Your task to perform on an android device: What's a good restaurant in San Francisco? Image 0: 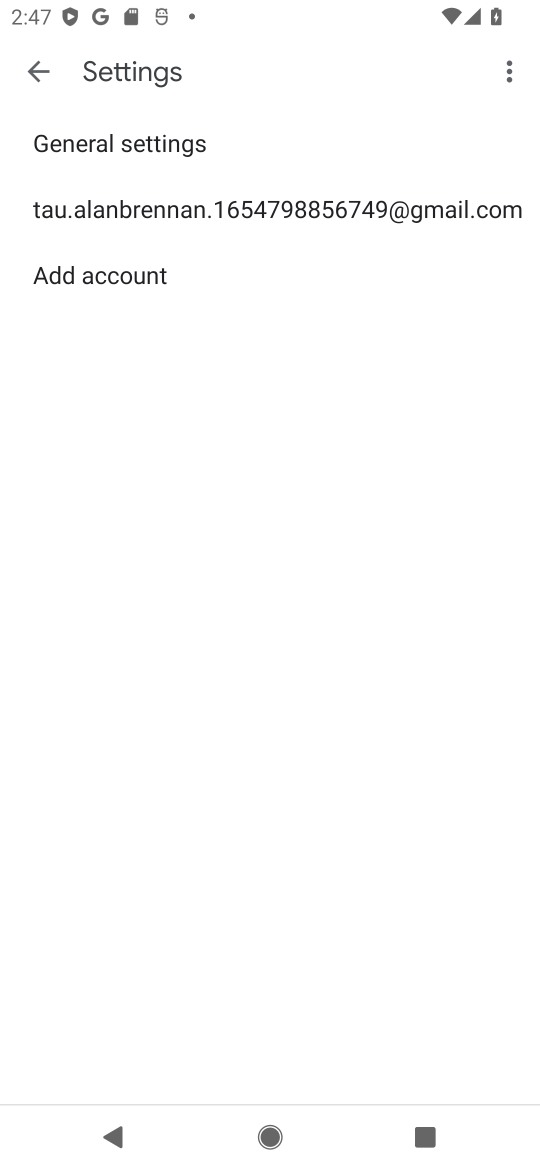
Step 0: press home button
Your task to perform on an android device: What's a good restaurant in San Francisco? Image 1: 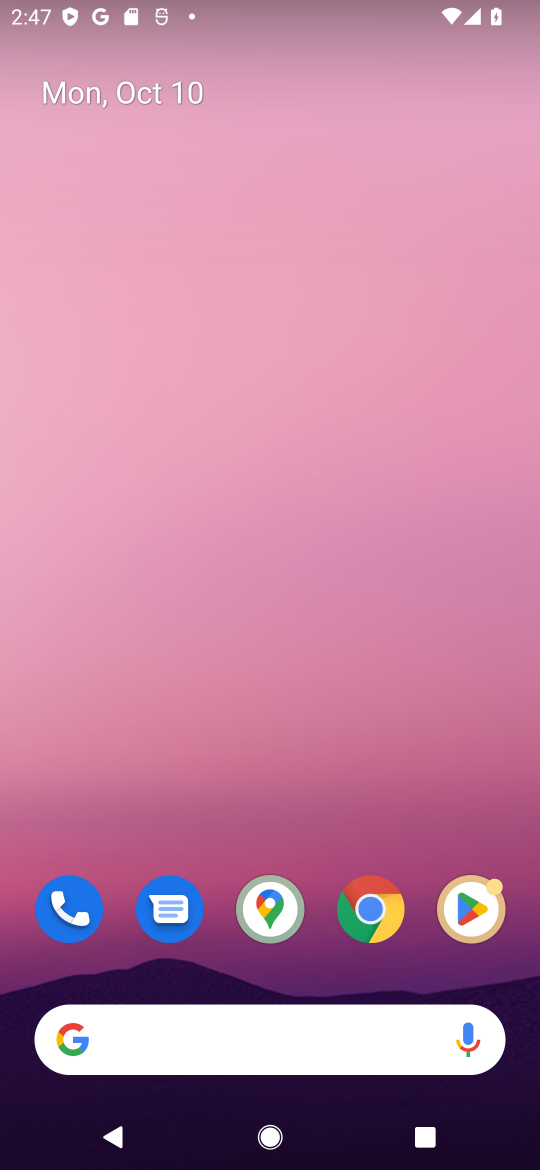
Step 1: click (363, 918)
Your task to perform on an android device: What's a good restaurant in San Francisco? Image 2: 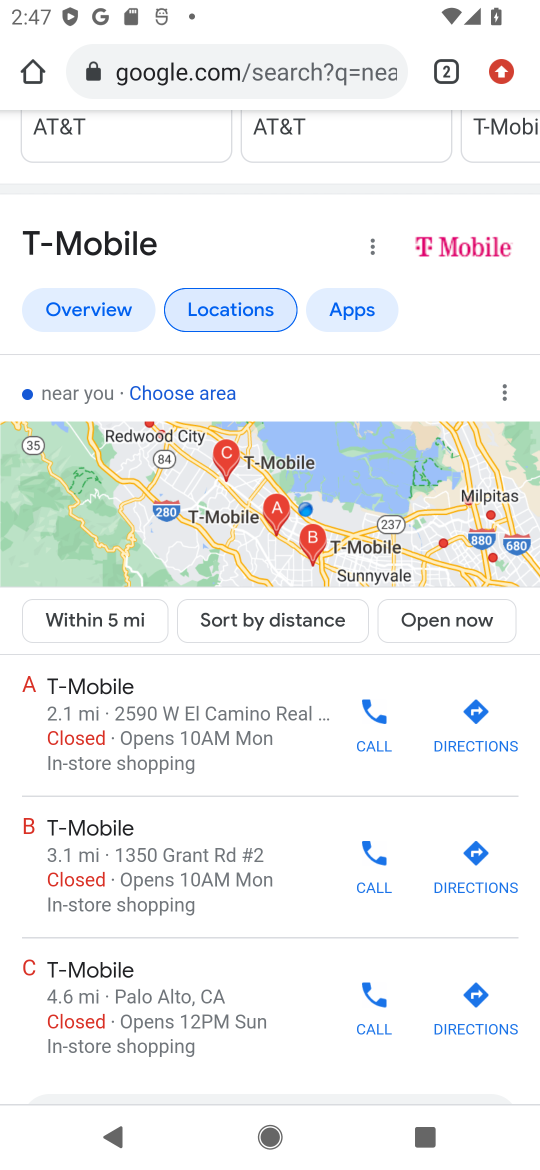
Step 2: click (248, 47)
Your task to perform on an android device: What's a good restaurant in San Francisco? Image 3: 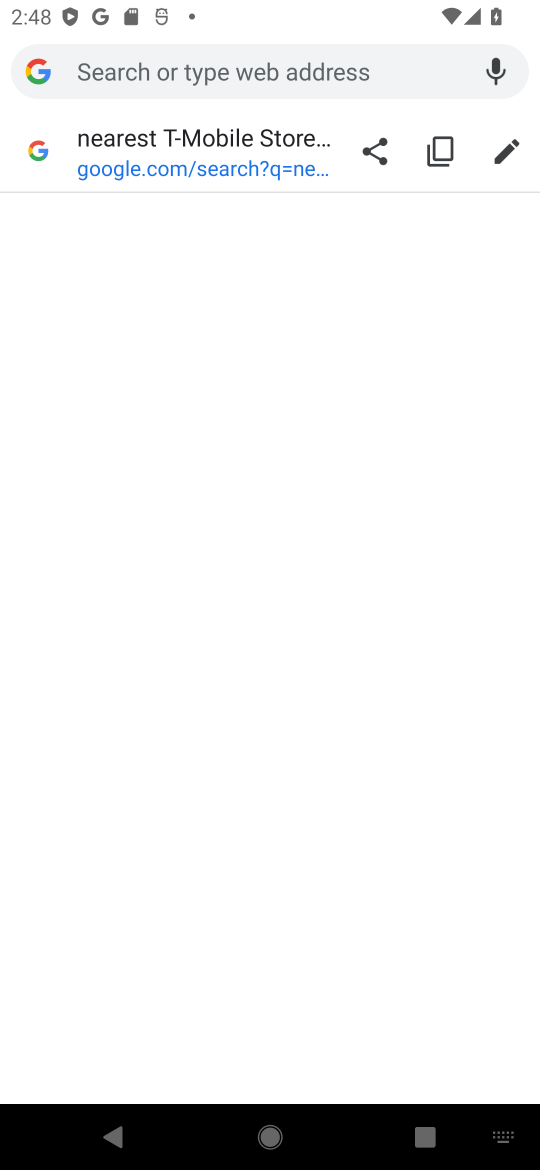
Step 3: type "good restaurant in San Francisco?"
Your task to perform on an android device: What's a good restaurant in San Francisco? Image 4: 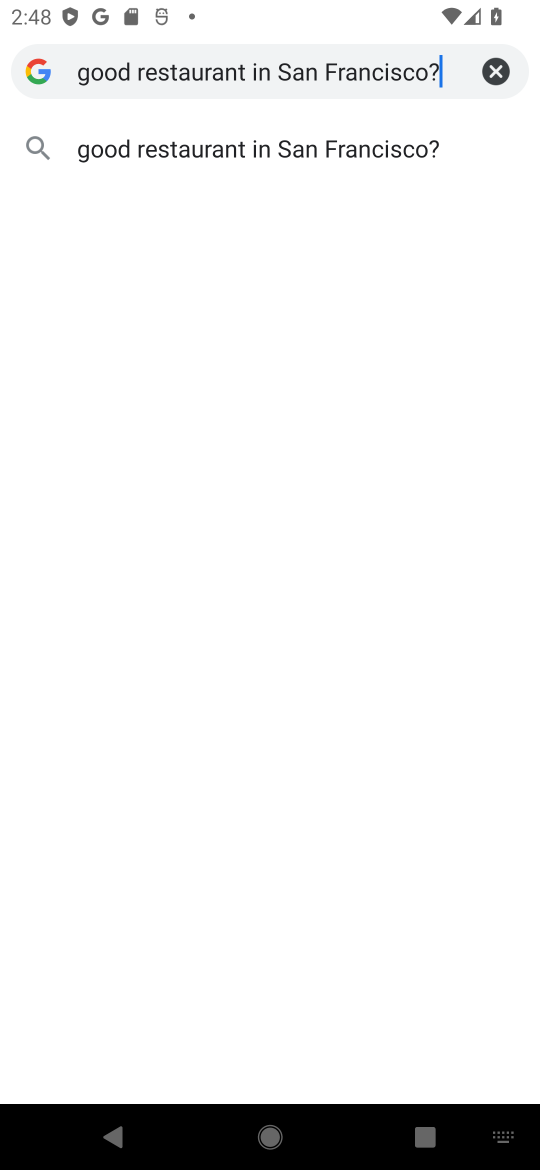
Step 4: click (193, 159)
Your task to perform on an android device: What's a good restaurant in San Francisco? Image 5: 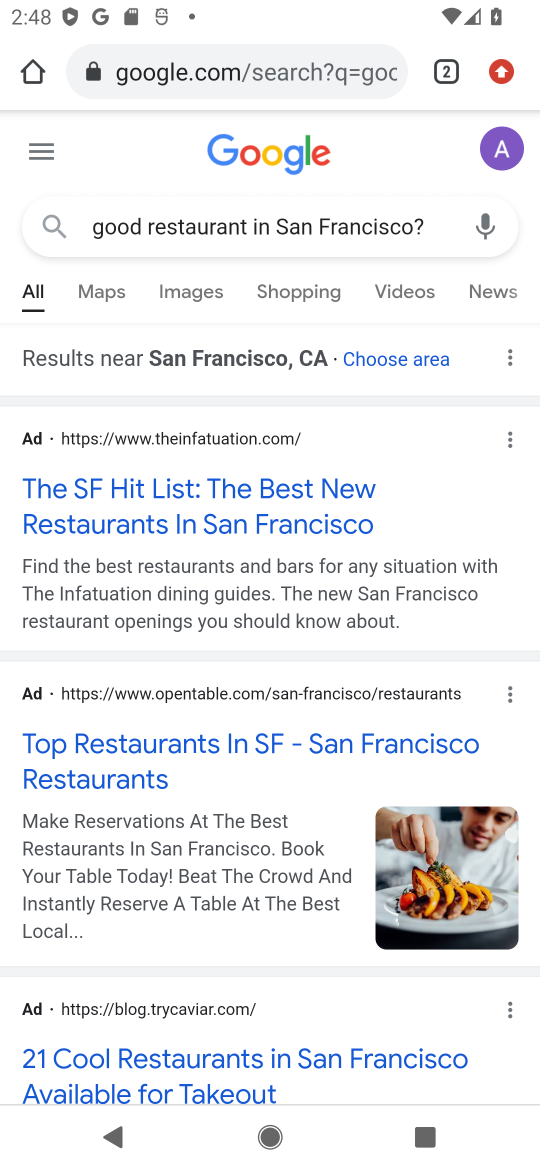
Step 5: click (134, 761)
Your task to perform on an android device: What's a good restaurant in San Francisco? Image 6: 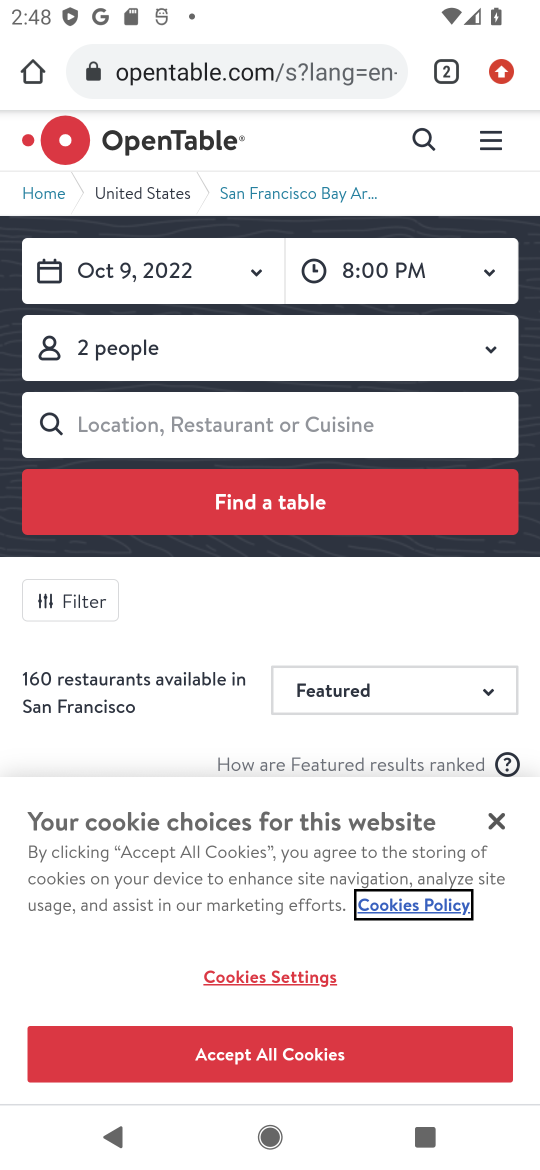
Step 6: click (269, 1051)
Your task to perform on an android device: What's a good restaurant in San Francisco? Image 7: 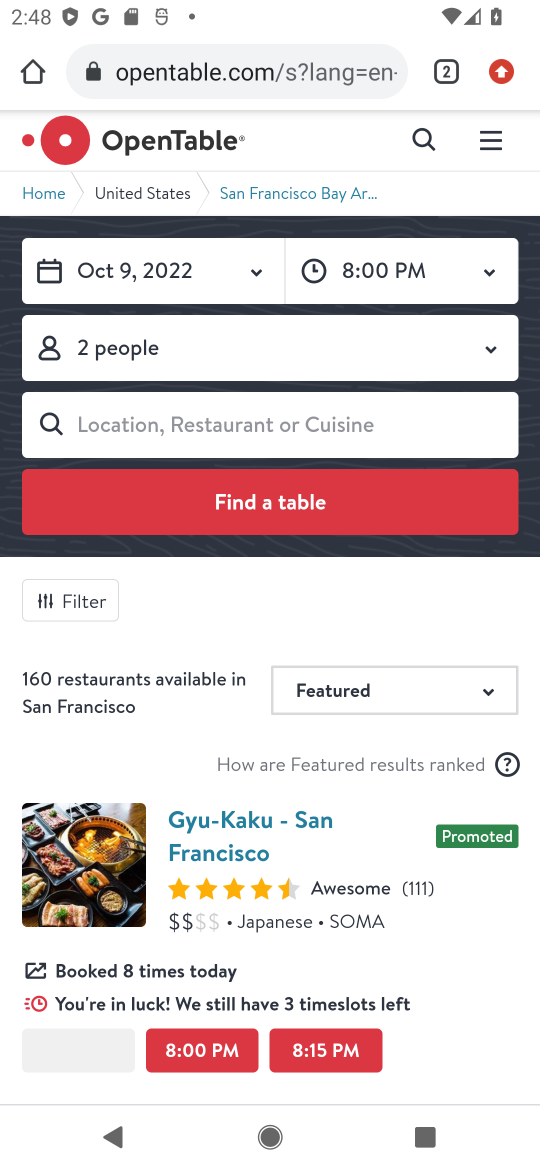
Step 7: task complete